Your task to perform on an android device: turn off data saver in the chrome app Image 0: 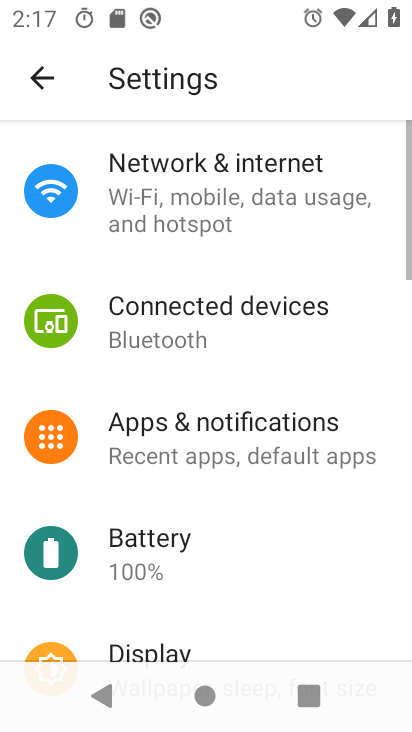
Step 0: press home button
Your task to perform on an android device: turn off data saver in the chrome app Image 1: 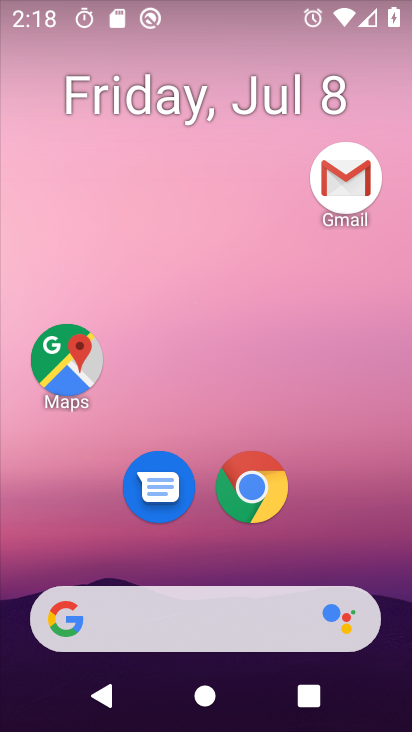
Step 1: drag from (327, 557) to (374, 104)
Your task to perform on an android device: turn off data saver in the chrome app Image 2: 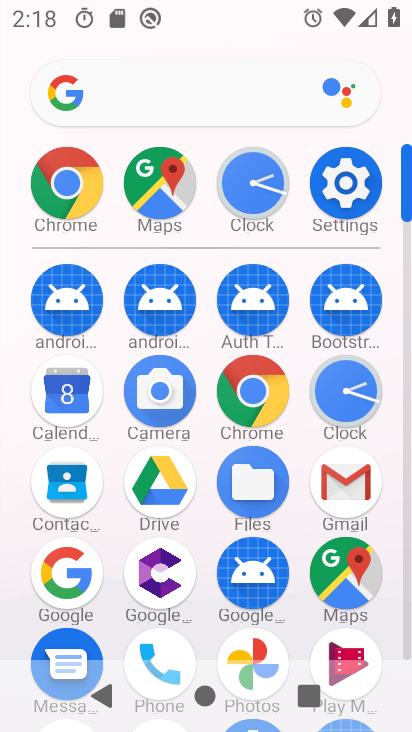
Step 2: click (258, 394)
Your task to perform on an android device: turn off data saver in the chrome app Image 3: 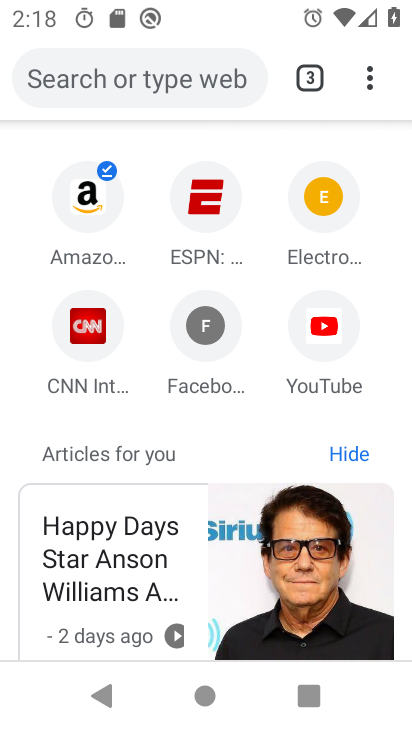
Step 3: click (369, 86)
Your task to perform on an android device: turn off data saver in the chrome app Image 4: 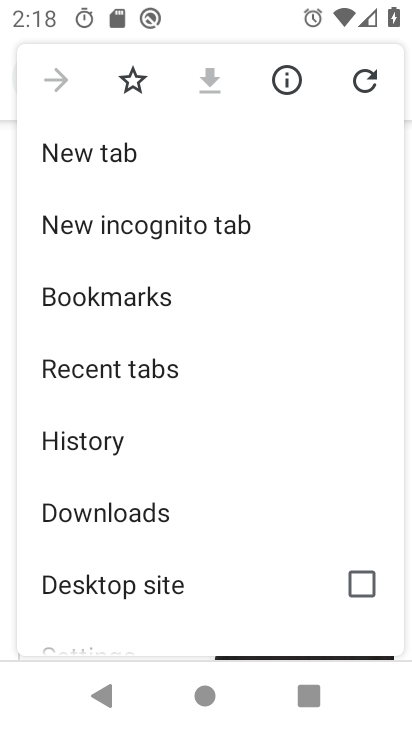
Step 4: drag from (235, 548) to (269, 395)
Your task to perform on an android device: turn off data saver in the chrome app Image 5: 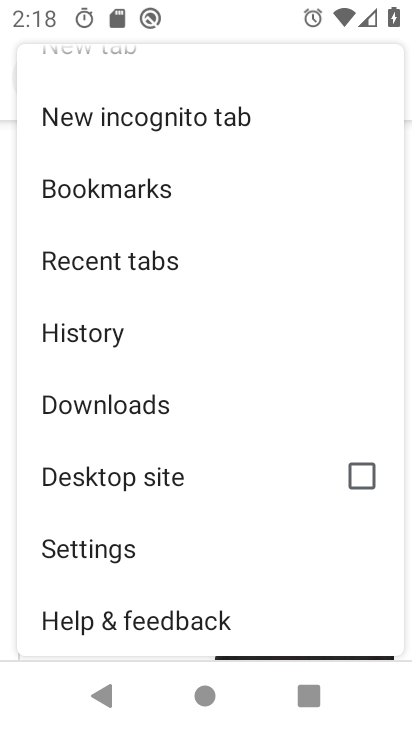
Step 5: drag from (249, 522) to (250, 374)
Your task to perform on an android device: turn off data saver in the chrome app Image 6: 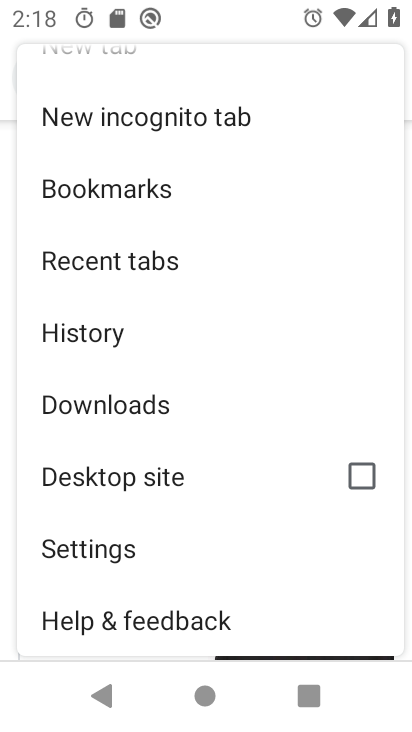
Step 6: click (121, 548)
Your task to perform on an android device: turn off data saver in the chrome app Image 7: 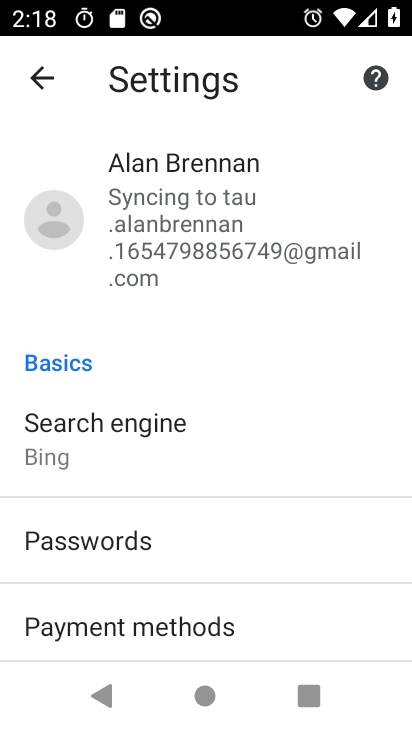
Step 7: drag from (278, 594) to (299, 429)
Your task to perform on an android device: turn off data saver in the chrome app Image 8: 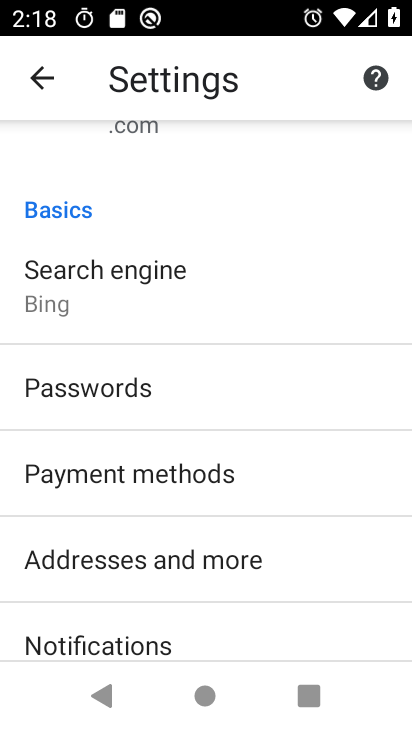
Step 8: drag from (306, 579) to (317, 442)
Your task to perform on an android device: turn off data saver in the chrome app Image 9: 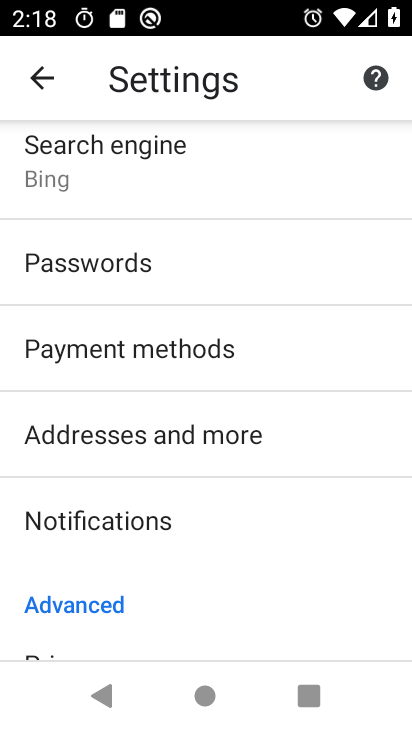
Step 9: drag from (305, 578) to (317, 413)
Your task to perform on an android device: turn off data saver in the chrome app Image 10: 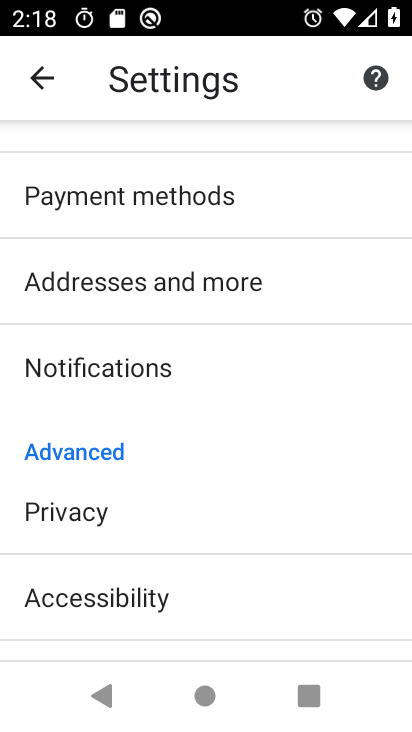
Step 10: drag from (314, 587) to (340, 456)
Your task to perform on an android device: turn off data saver in the chrome app Image 11: 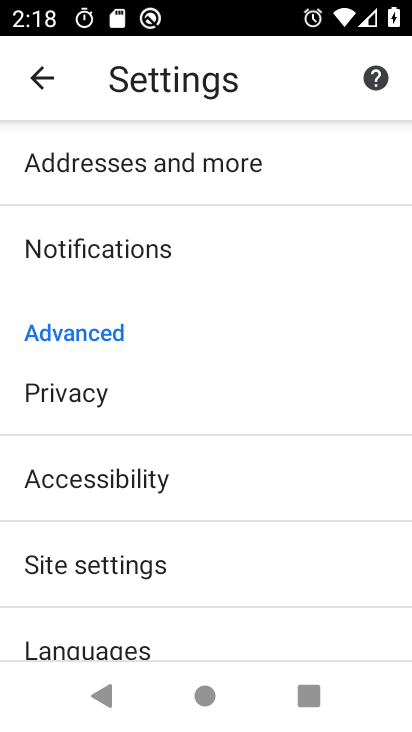
Step 11: drag from (298, 543) to (335, 382)
Your task to perform on an android device: turn off data saver in the chrome app Image 12: 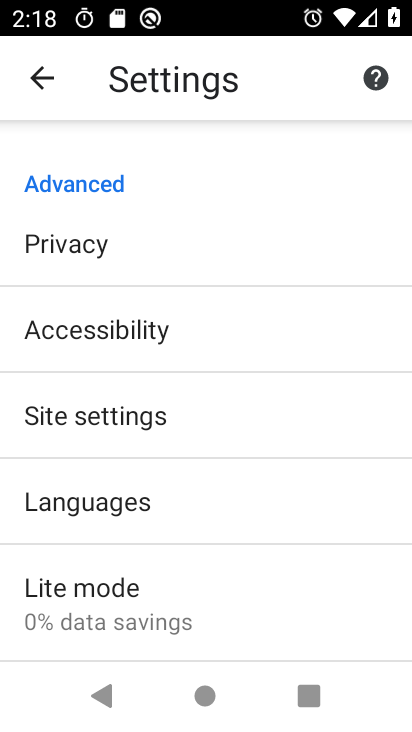
Step 12: click (206, 587)
Your task to perform on an android device: turn off data saver in the chrome app Image 13: 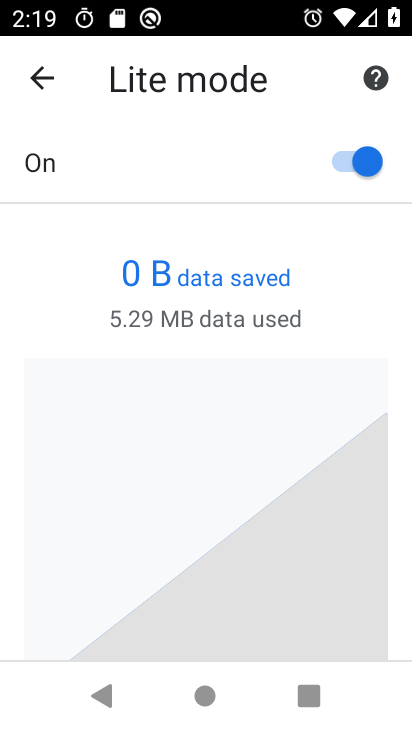
Step 13: click (347, 162)
Your task to perform on an android device: turn off data saver in the chrome app Image 14: 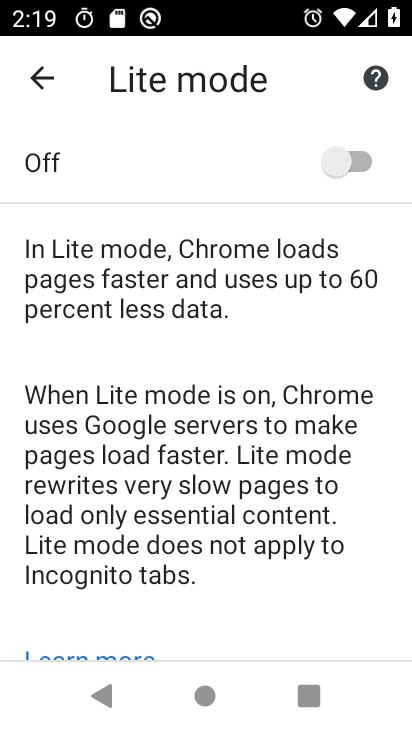
Step 14: task complete